Your task to perform on an android device: Go to notification settings Image 0: 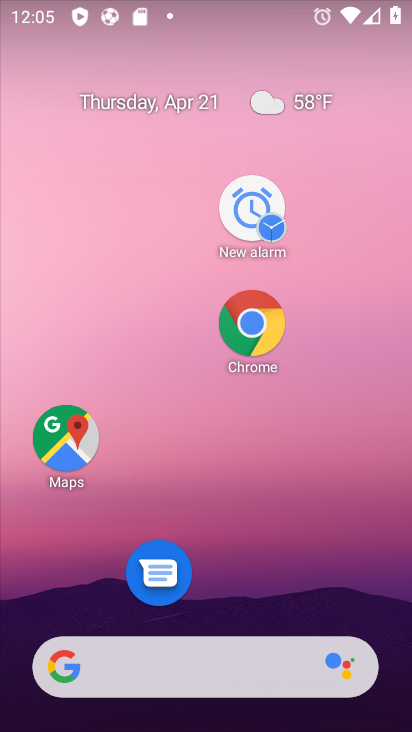
Step 0: drag from (245, 526) to (239, 107)
Your task to perform on an android device: Go to notification settings Image 1: 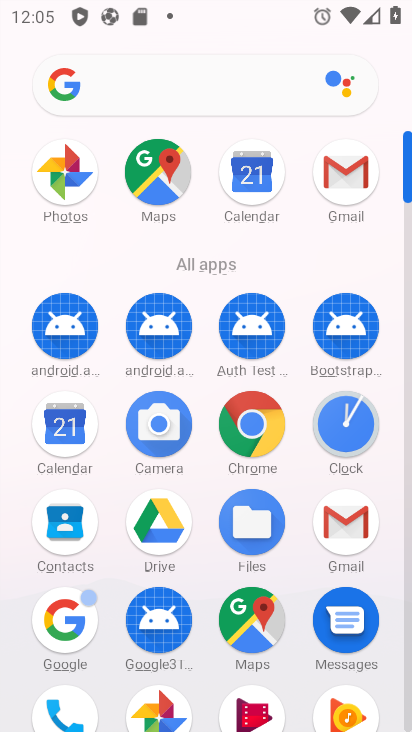
Step 1: drag from (200, 576) to (122, 284)
Your task to perform on an android device: Go to notification settings Image 2: 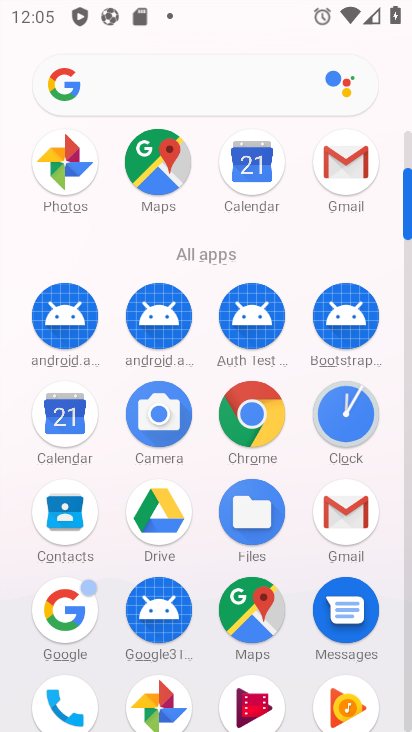
Step 2: drag from (272, 607) to (276, 306)
Your task to perform on an android device: Go to notification settings Image 3: 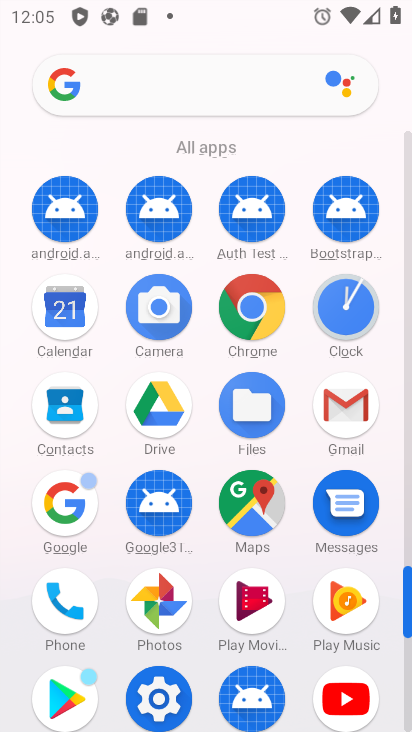
Step 3: click (159, 696)
Your task to perform on an android device: Go to notification settings Image 4: 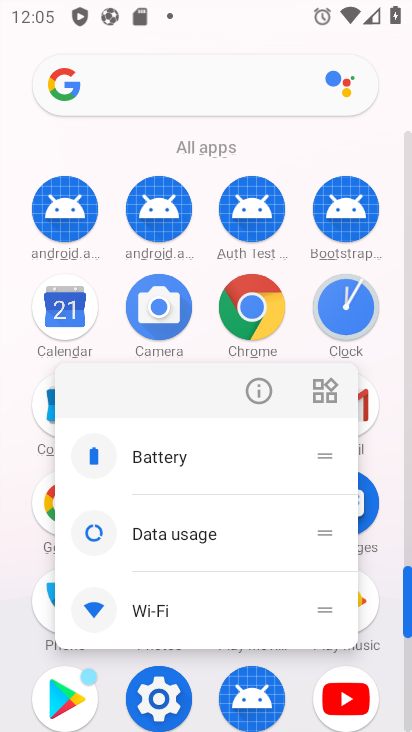
Step 4: click (162, 702)
Your task to perform on an android device: Go to notification settings Image 5: 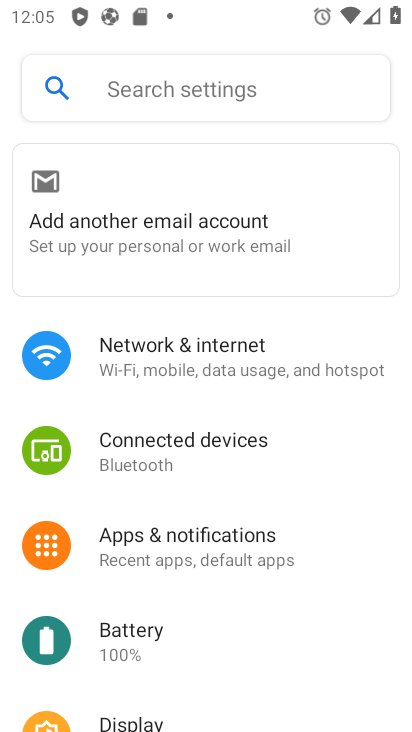
Step 5: click (164, 559)
Your task to perform on an android device: Go to notification settings Image 6: 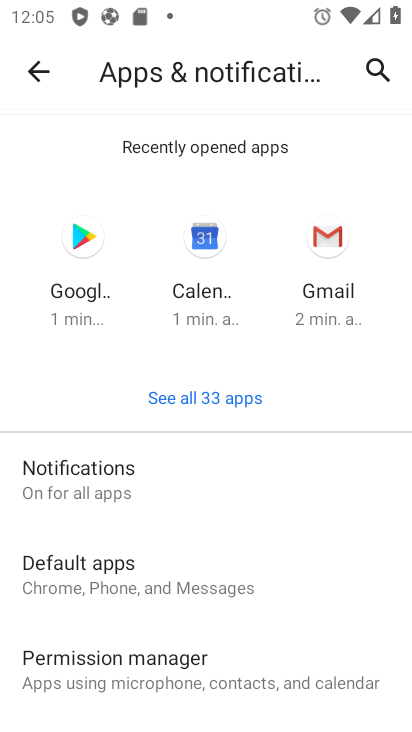
Step 6: click (101, 495)
Your task to perform on an android device: Go to notification settings Image 7: 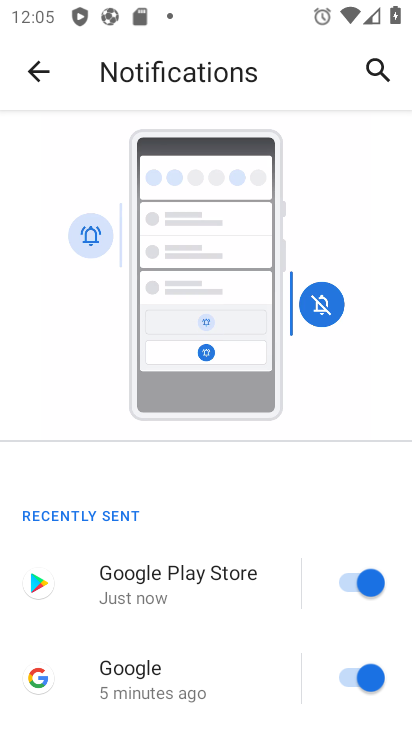
Step 7: task complete